Your task to perform on an android device: add a label to a message in the gmail app Image 0: 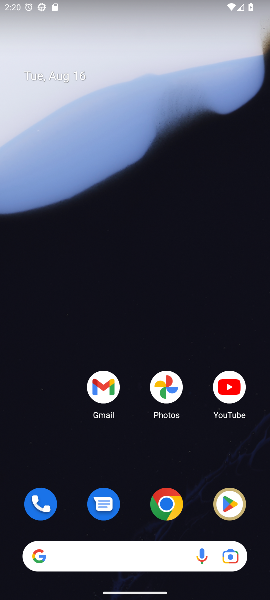
Step 0: drag from (129, 506) to (140, 126)
Your task to perform on an android device: add a label to a message in the gmail app Image 1: 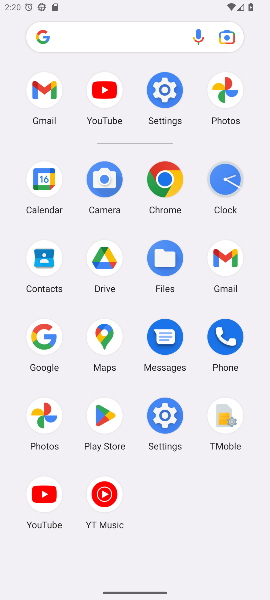
Step 1: click (224, 260)
Your task to perform on an android device: add a label to a message in the gmail app Image 2: 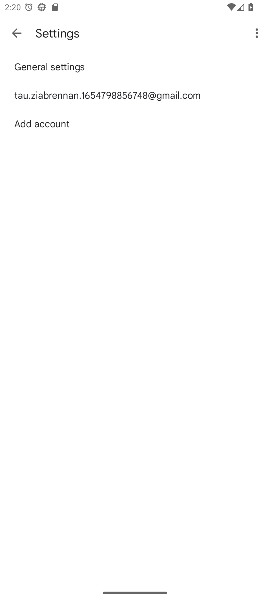
Step 2: click (12, 32)
Your task to perform on an android device: add a label to a message in the gmail app Image 3: 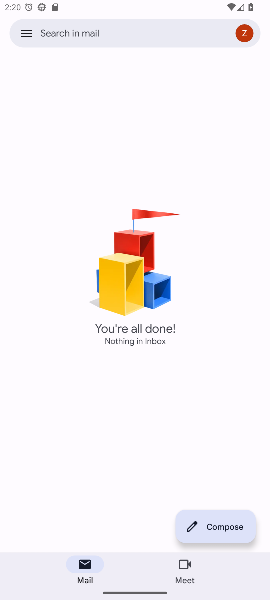
Step 3: click (20, 31)
Your task to perform on an android device: add a label to a message in the gmail app Image 4: 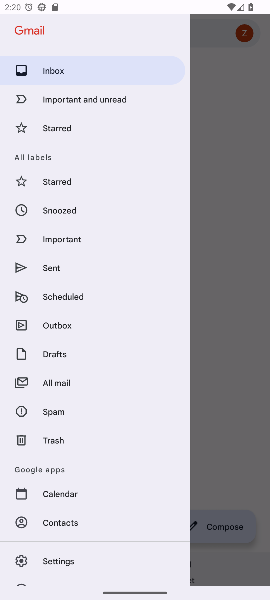
Step 4: click (58, 381)
Your task to perform on an android device: add a label to a message in the gmail app Image 5: 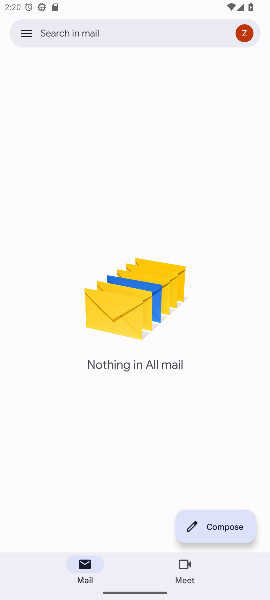
Step 5: task complete